Your task to perform on an android device: Clear all items from cart on costco. Add "usb-c to usb-b" to the cart on costco, then select checkout. Image 0: 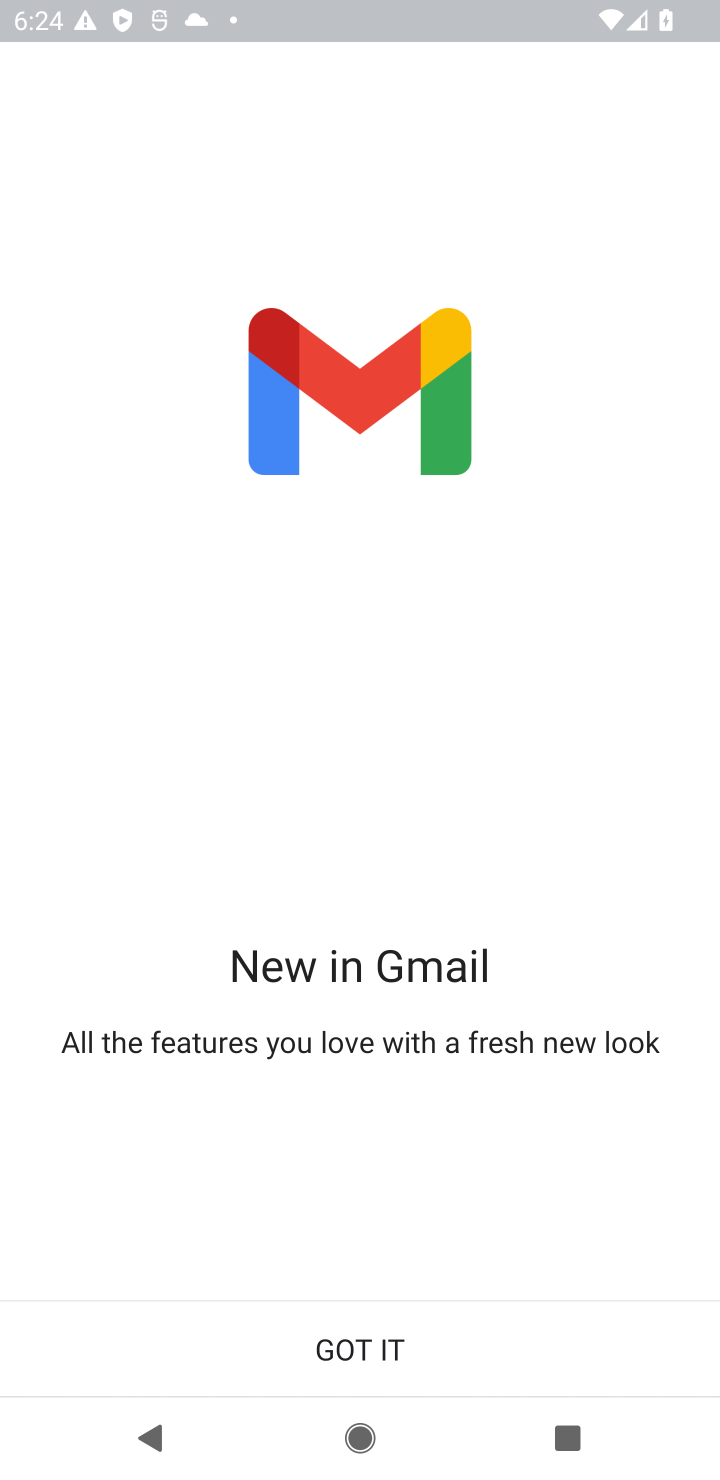
Step 0: press home button
Your task to perform on an android device: Clear all items from cart on costco. Add "usb-c to usb-b" to the cart on costco, then select checkout. Image 1: 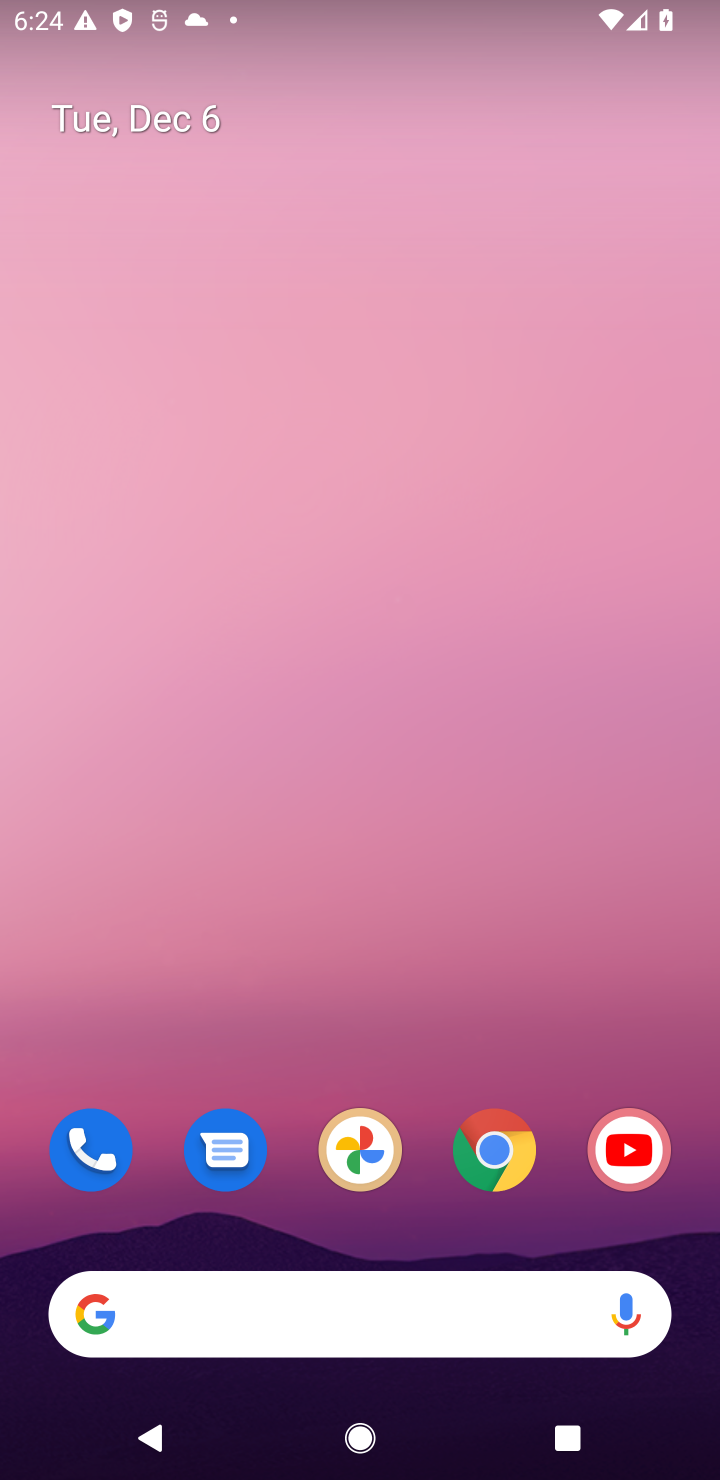
Step 1: click (498, 1146)
Your task to perform on an android device: Clear all items from cart on costco. Add "usb-c to usb-b" to the cart on costco, then select checkout. Image 2: 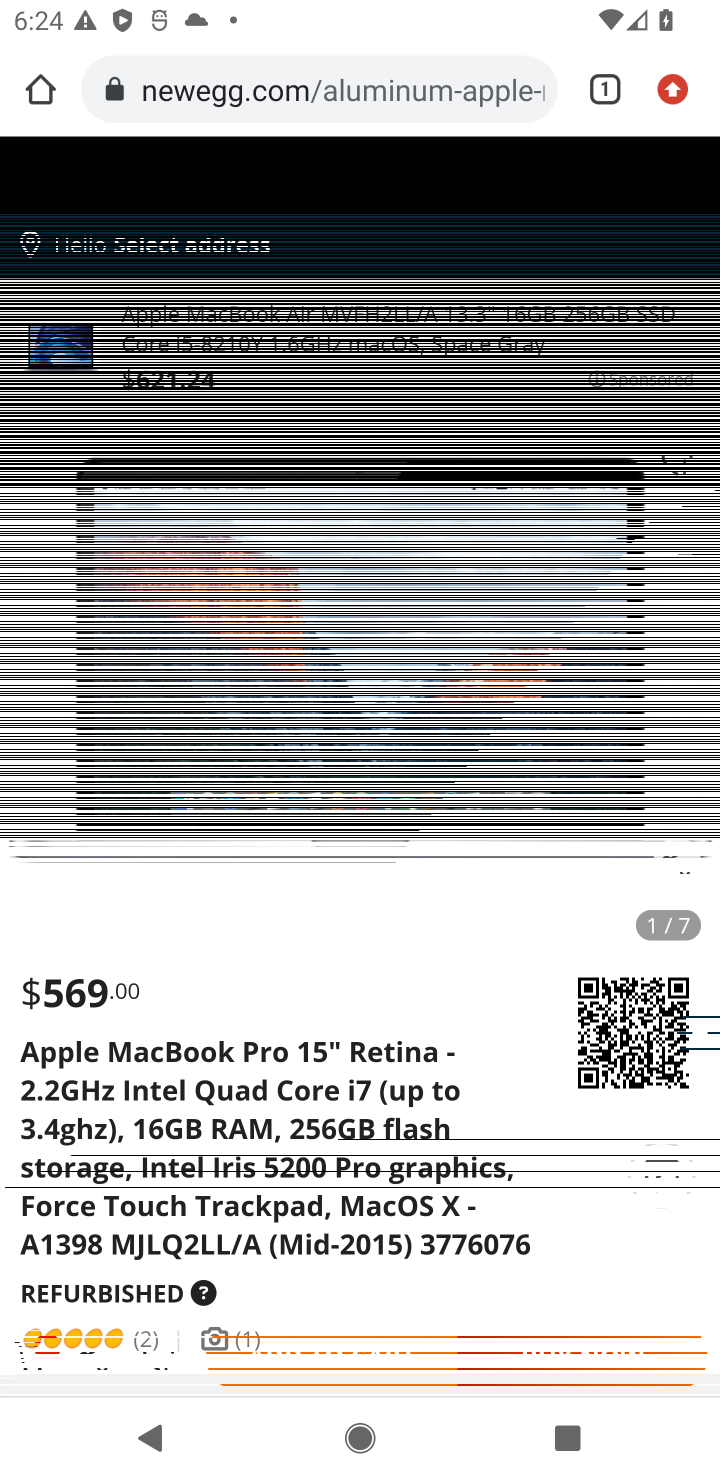
Step 2: click (238, 95)
Your task to perform on an android device: Clear all items from cart on costco. Add "usb-c to usb-b" to the cart on costco, then select checkout. Image 3: 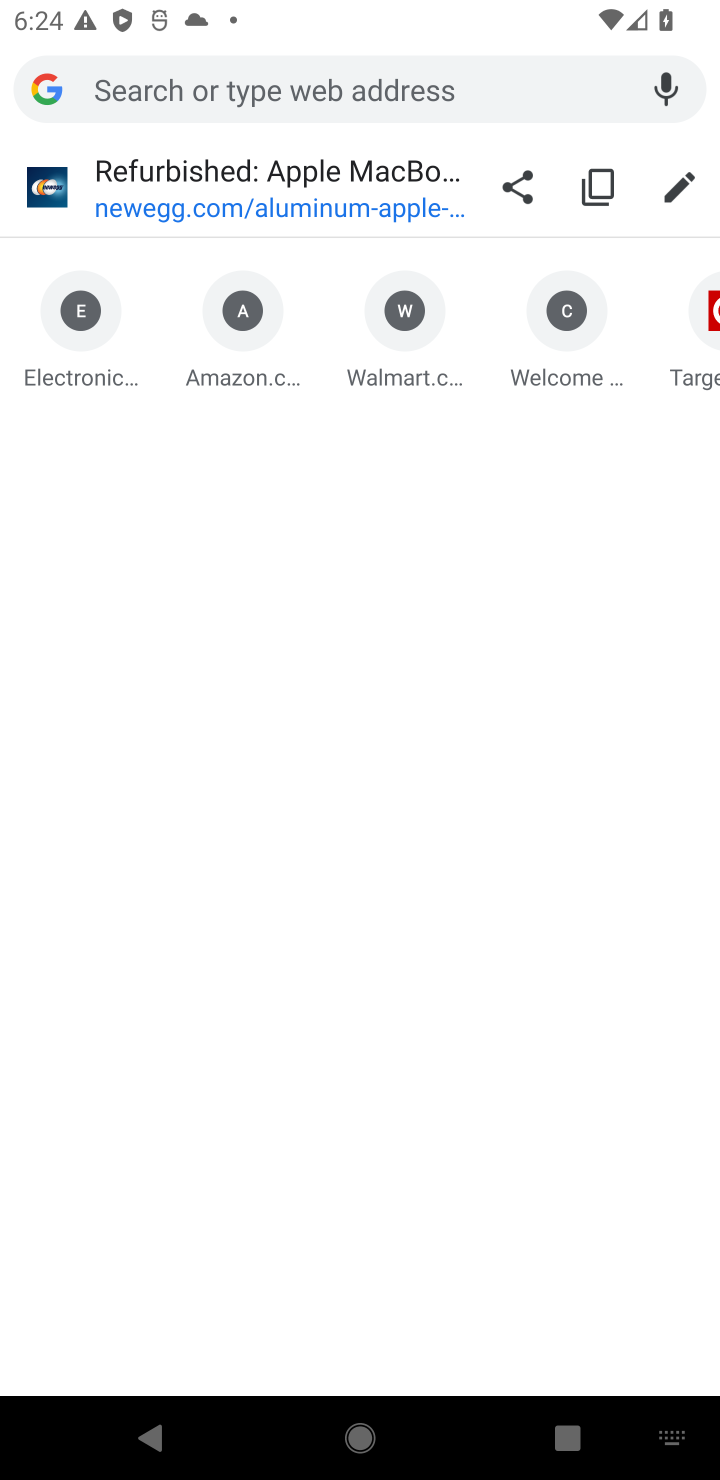
Step 3: type "costco.com"
Your task to perform on an android device: Clear all items from cart on costco. Add "usb-c to usb-b" to the cart on costco, then select checkout. Image 4: 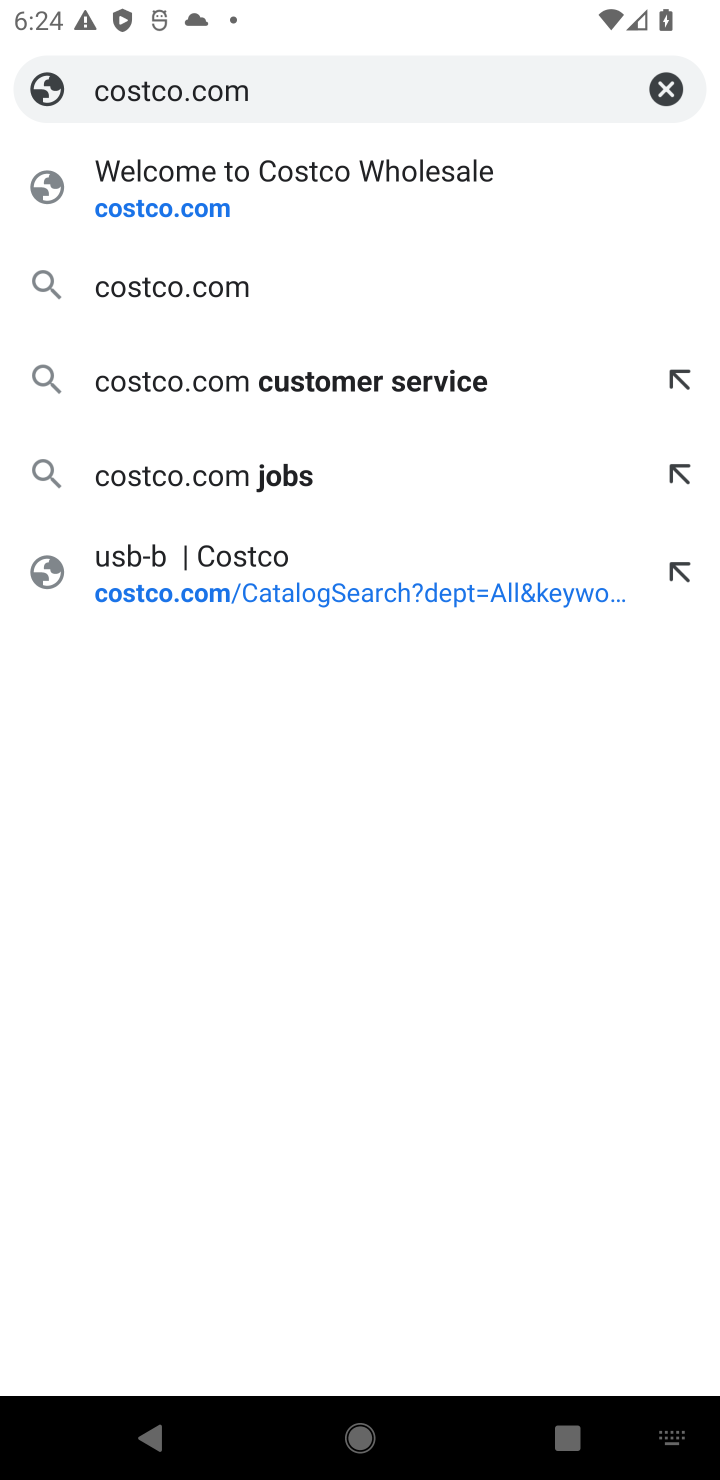
Step 4: click (203, 204)
Your task to perform on an android device: Clear all items from cart on costco. Add "usb-c to usb-b" to the cart on costco, then select checkout. Image 5: 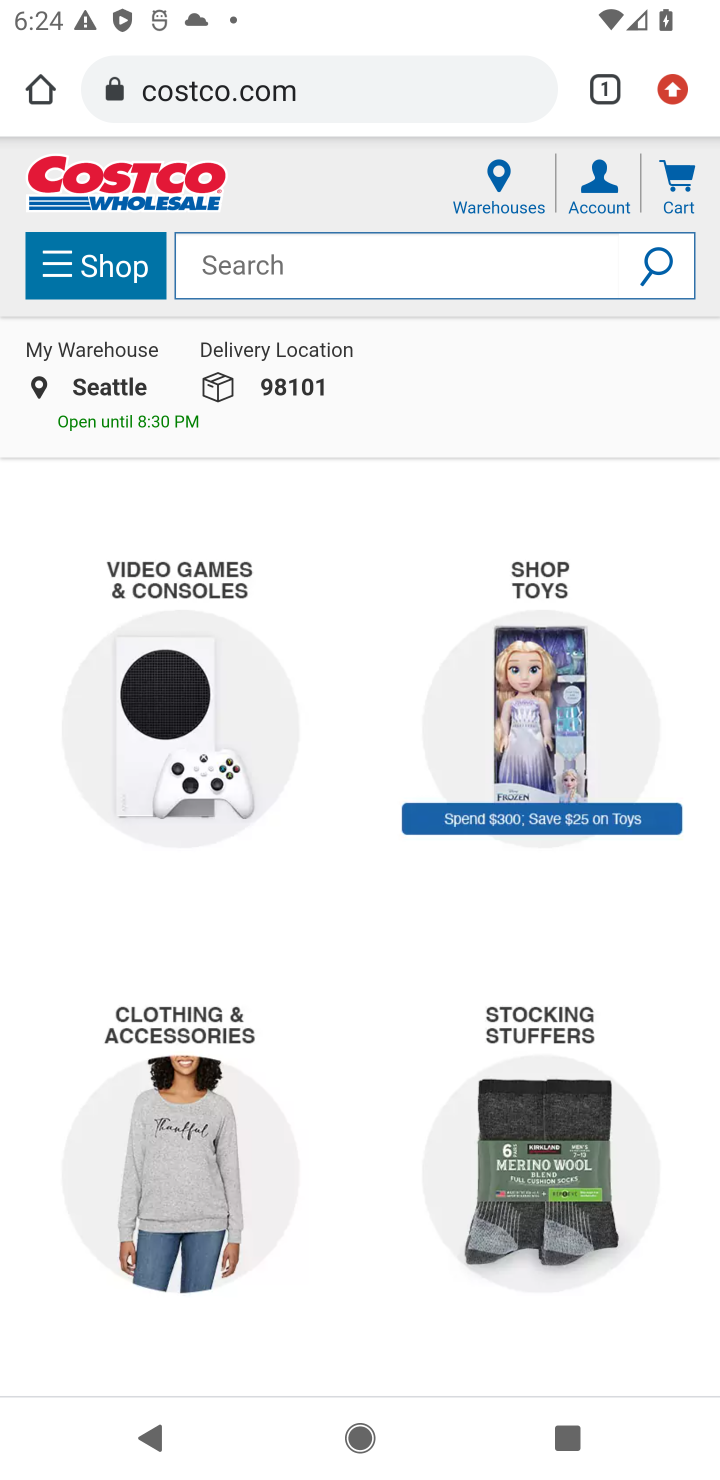
Step 5: click (672, 199)
Your task to perform on an android device: Clear all items from cart on costco. Add "usb-c to usb-b" to the cart on costco, then select checkout. Image 6: 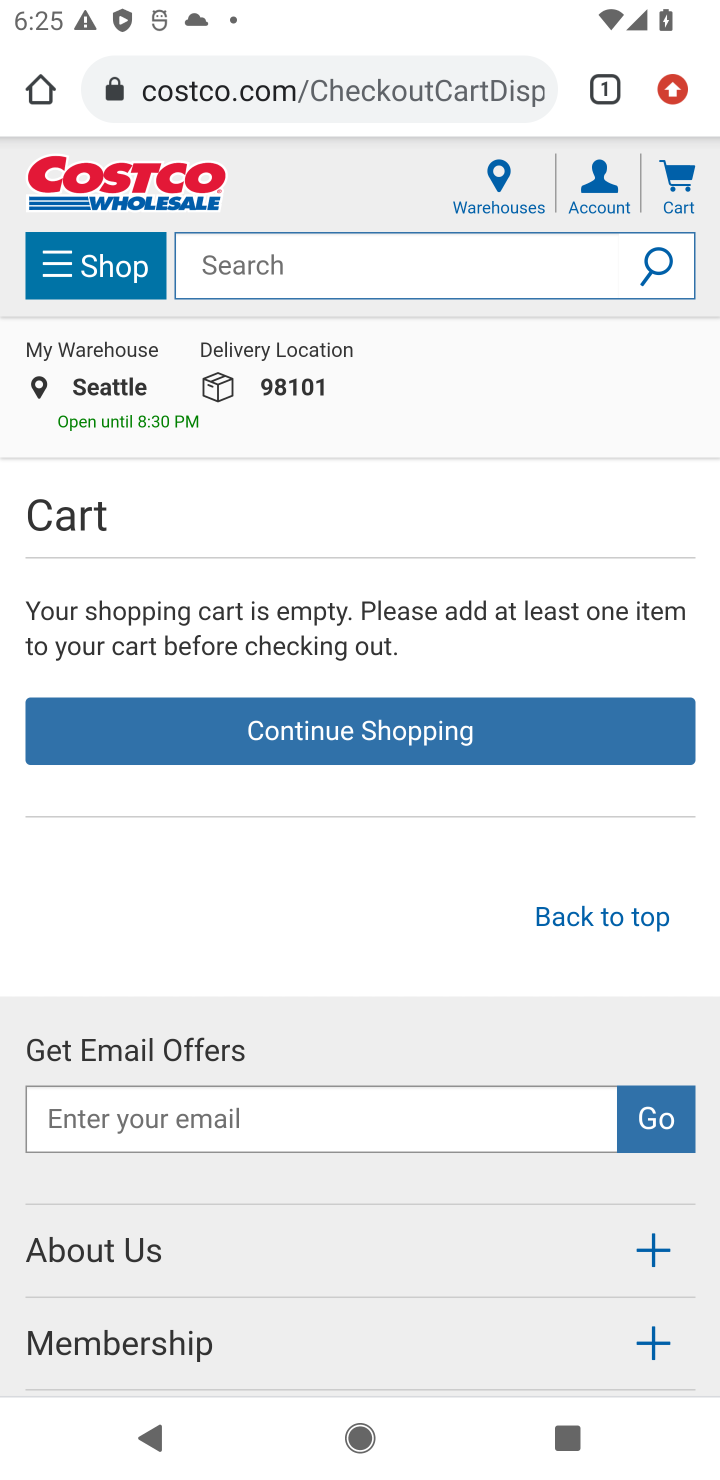
Step 6: click (242, 272)
Your task to perform on an android device: Clear all items from cart on costco. Add "usb-c to usb-b" to the cart on costco, then select checkout. Image 7: 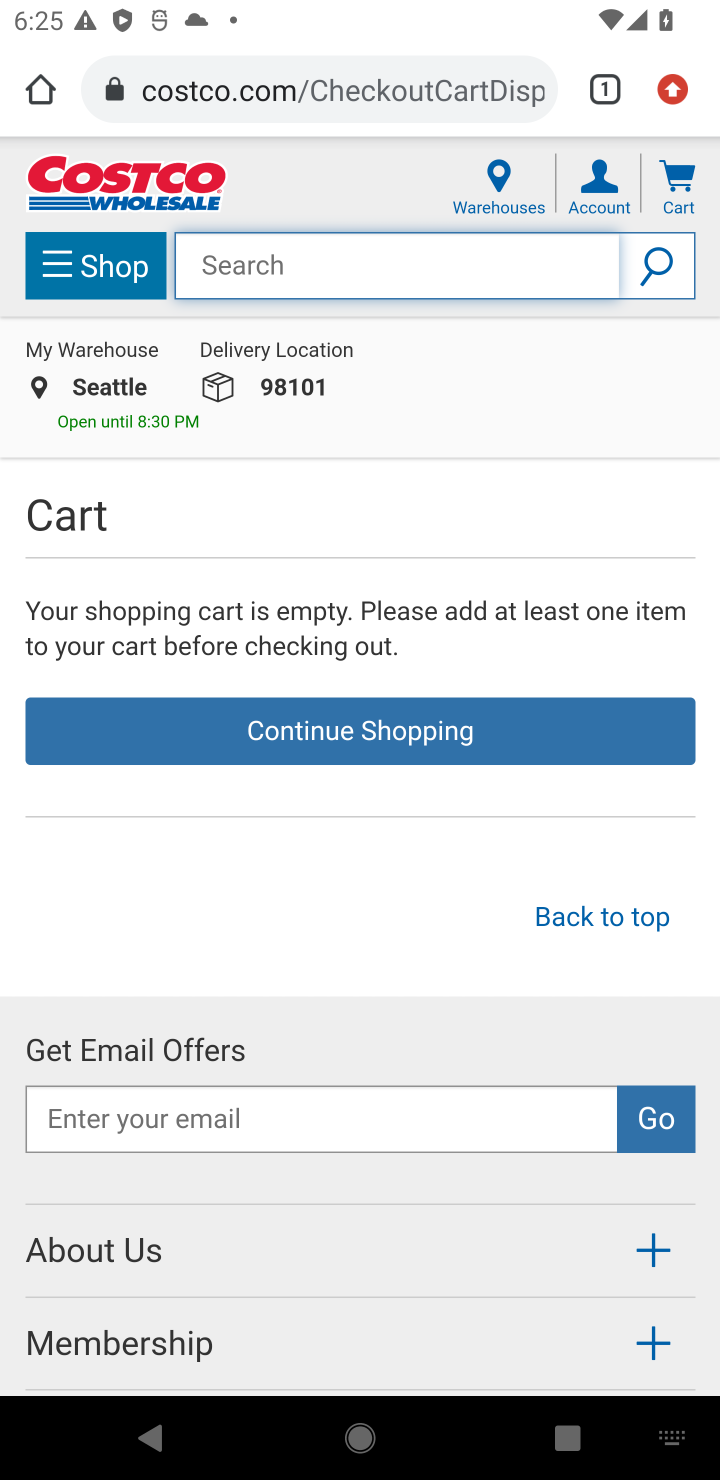
Step 7: type "usb-c to usb-b"
Your task to perform on an android device: Clear all items from cart on costco. Add "usb-c to usb-b" to the cart on costco, then select checkout. Image 8: 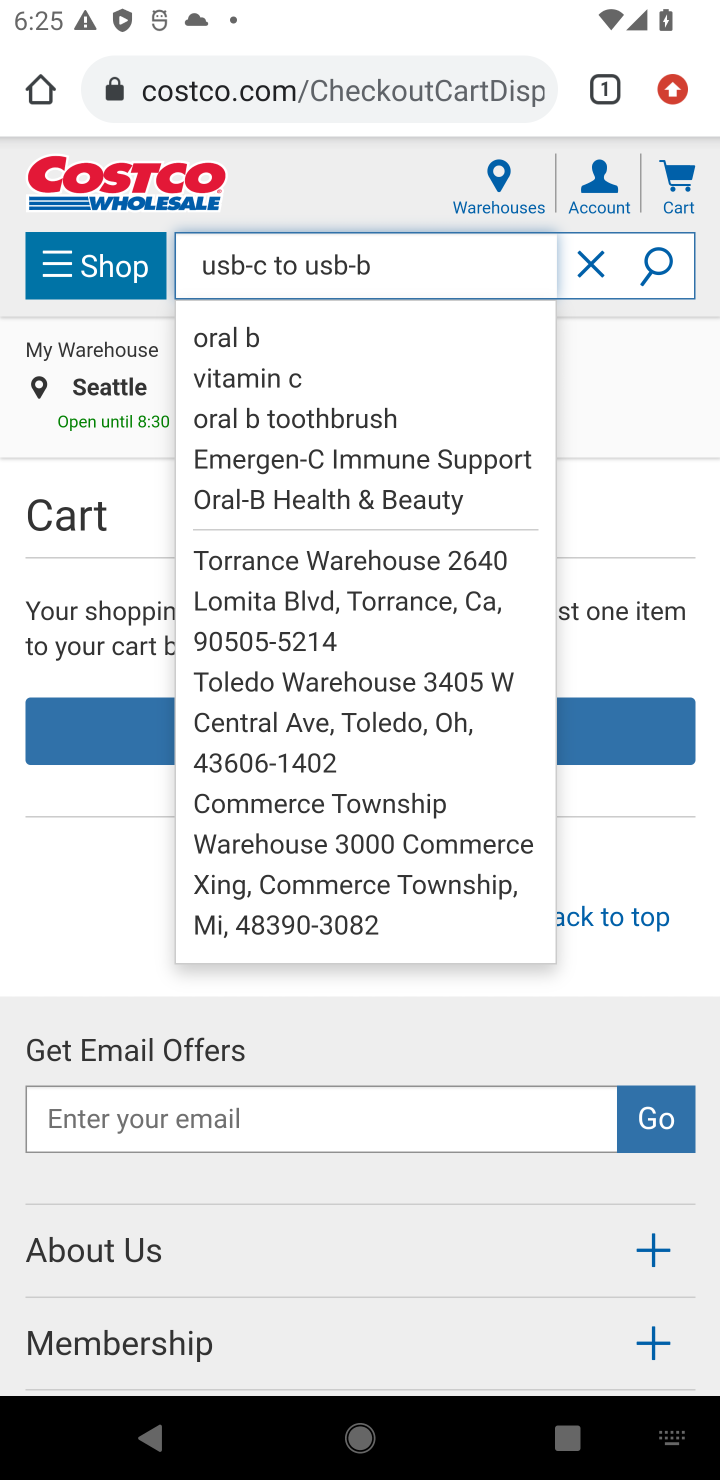
Step 8: click (647, 267)
Your task to perform on an android device: Clear all items from cart on costco. Add "usb-c to usb-b" to the cart on costco, then select checkout. Image 9: 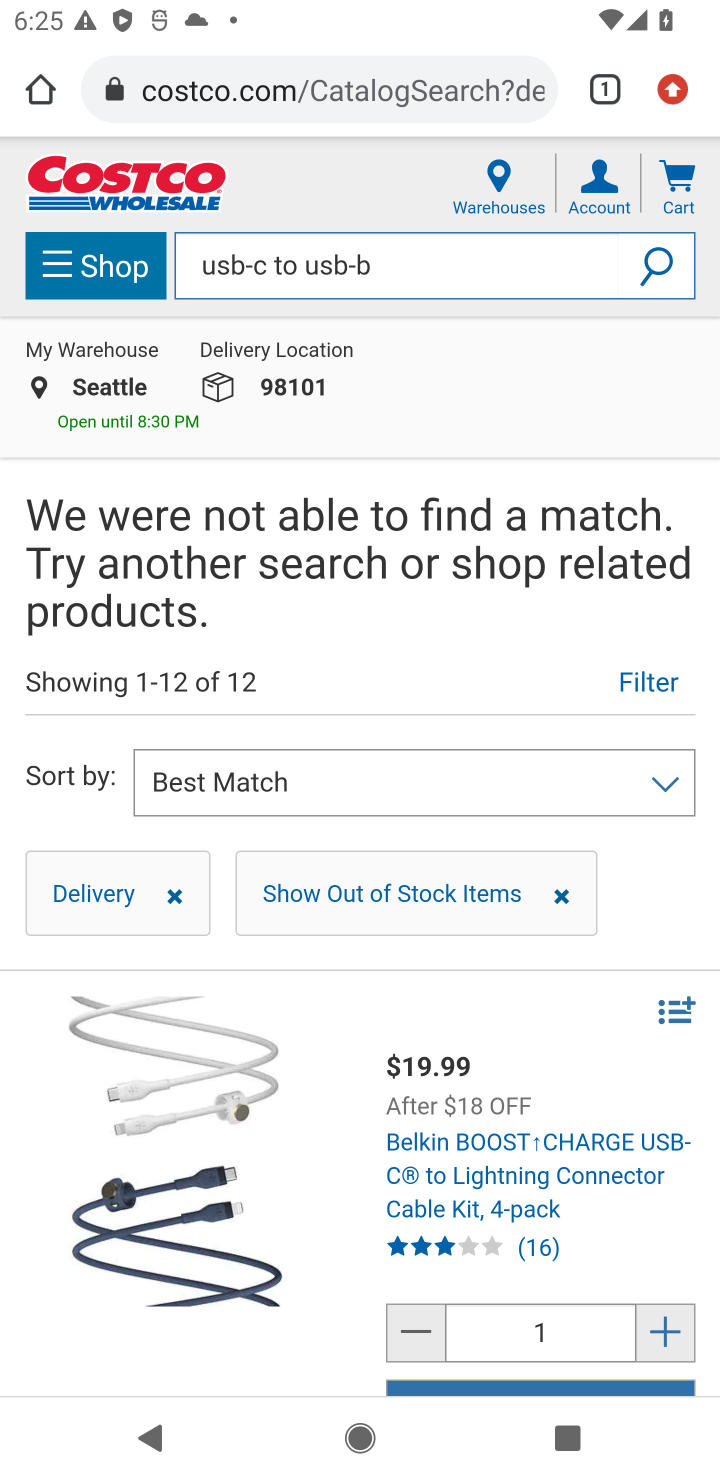
Step 9: task complete